Your task to perform on an android device: What's the weather today? Image 0: 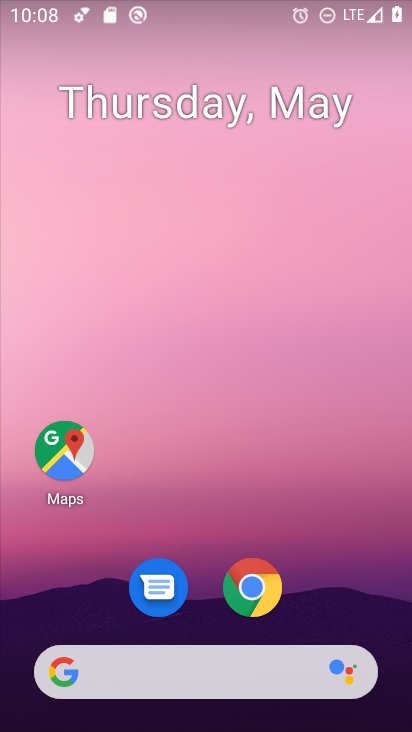
Step 0: click (115, 673)
Your task to perform on an android device: What's the weather today? Image 1: 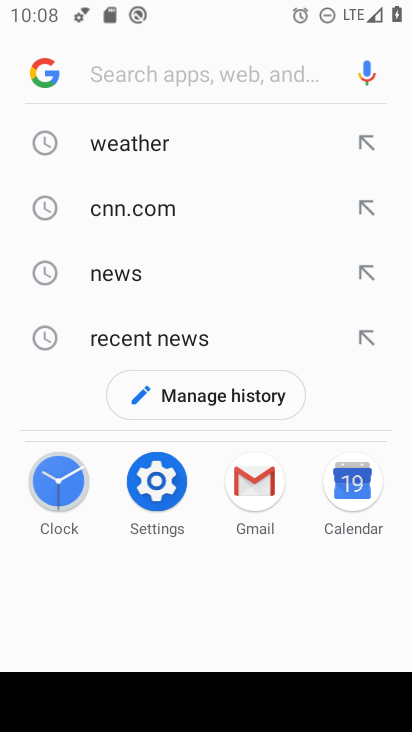
Step 1: click (108, 150)
Your task to perform on an android device: What's the weather today? Image 2: 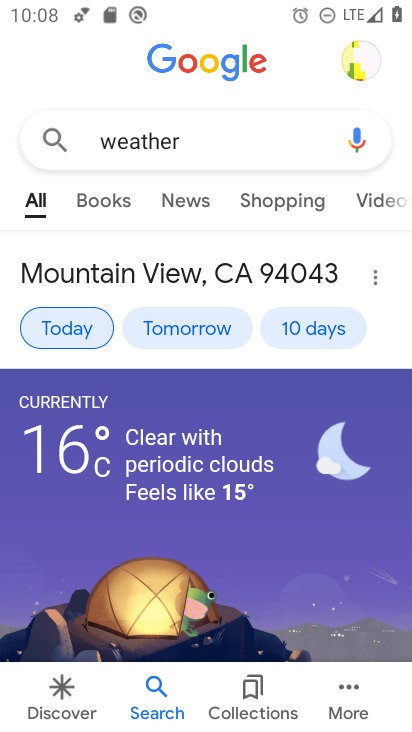
Step 2: task complete